Your task to perform on an android device: install app "Venmo" Image 0: 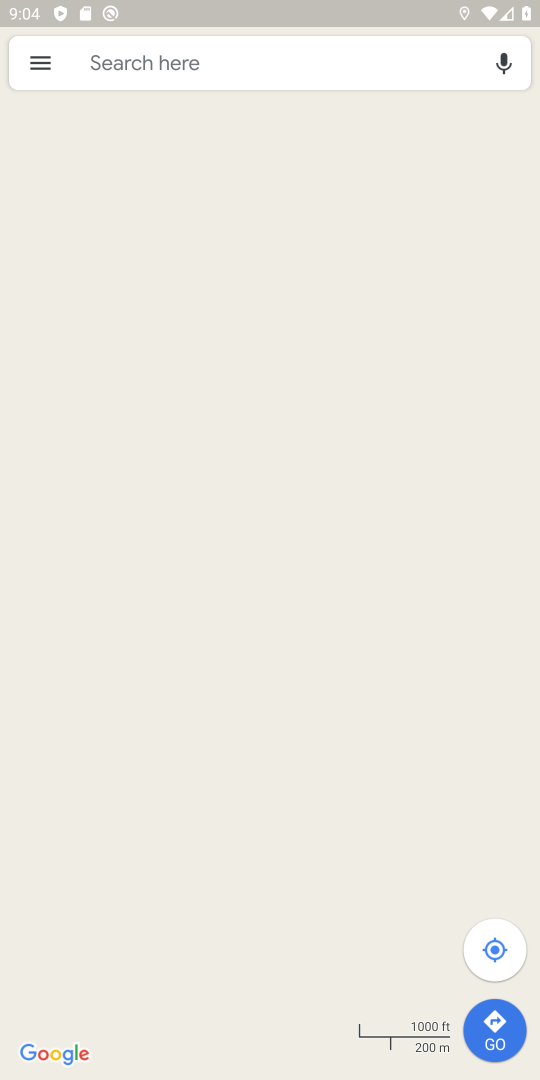
Step 0: click (238, 201)
Your task to perform on an android device: install app "Venmo" Image 1: 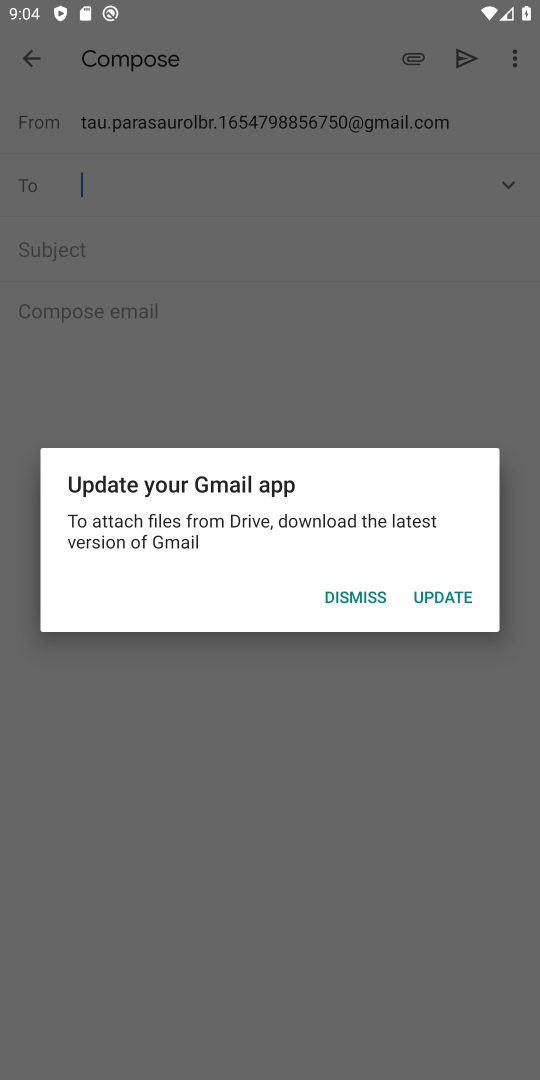
Step 1: press home button
Your task to perform on an android device: install app "Venmo" Image 2: 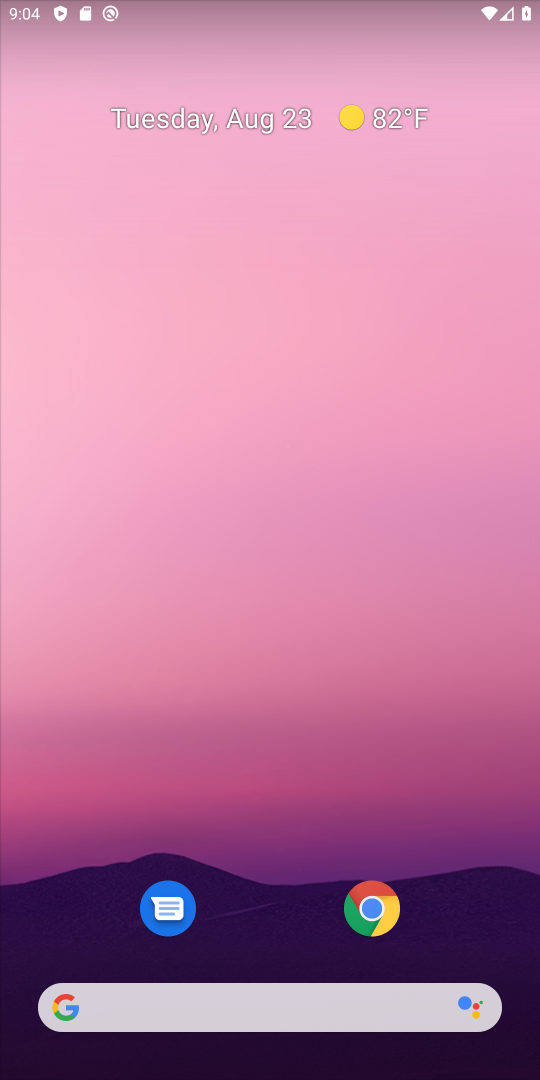
Step 2: drag from (260, 943) to (260, 193)
Your task to perform on an android device: install app "Venmo" Image 3: 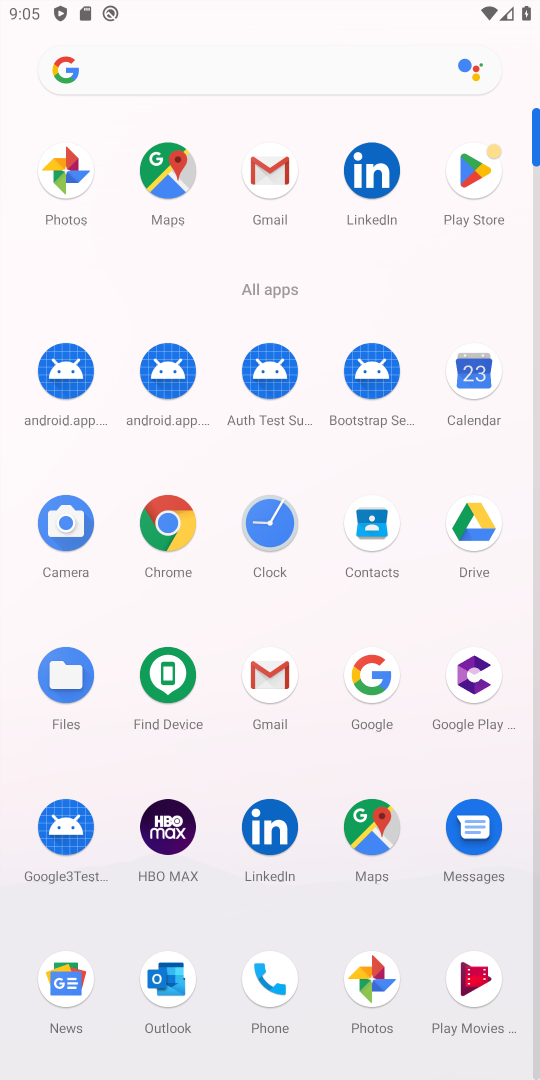
Step 3: click (473, 206)
Your task to perform on an android device: install app "Venmo" Image 4: 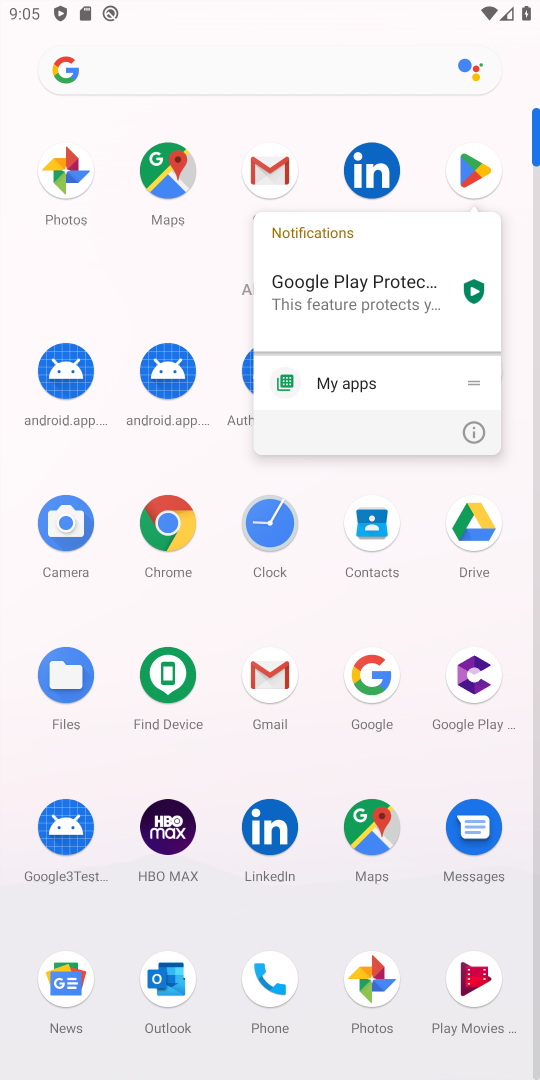
Step 4: click (460, 160)
Your task to perform on an android device: install app "Venmo" Image 5: 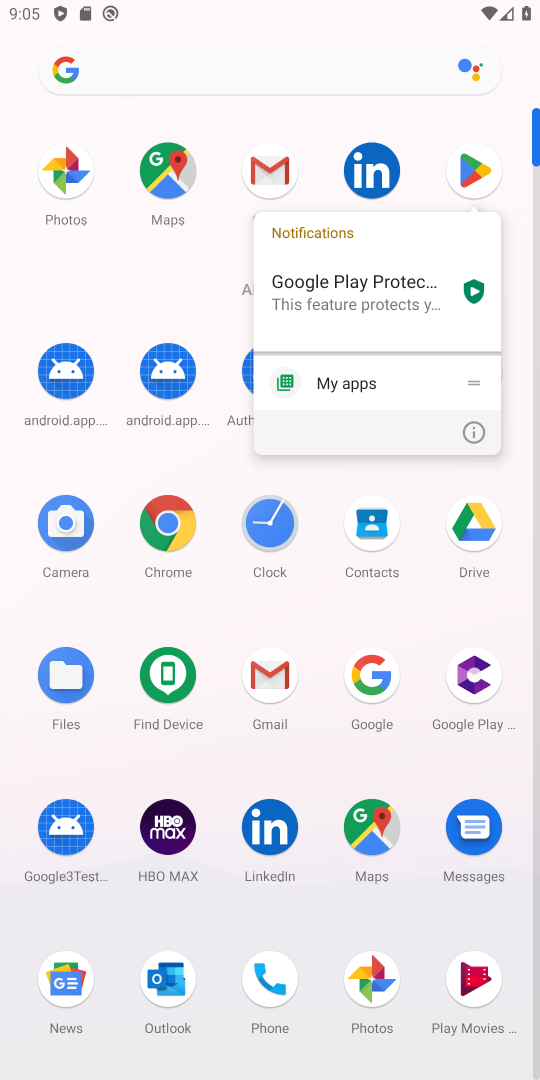
Step 5: click (486, 174)
Your task to perform on an android device: install app "Venmo" Image 6: 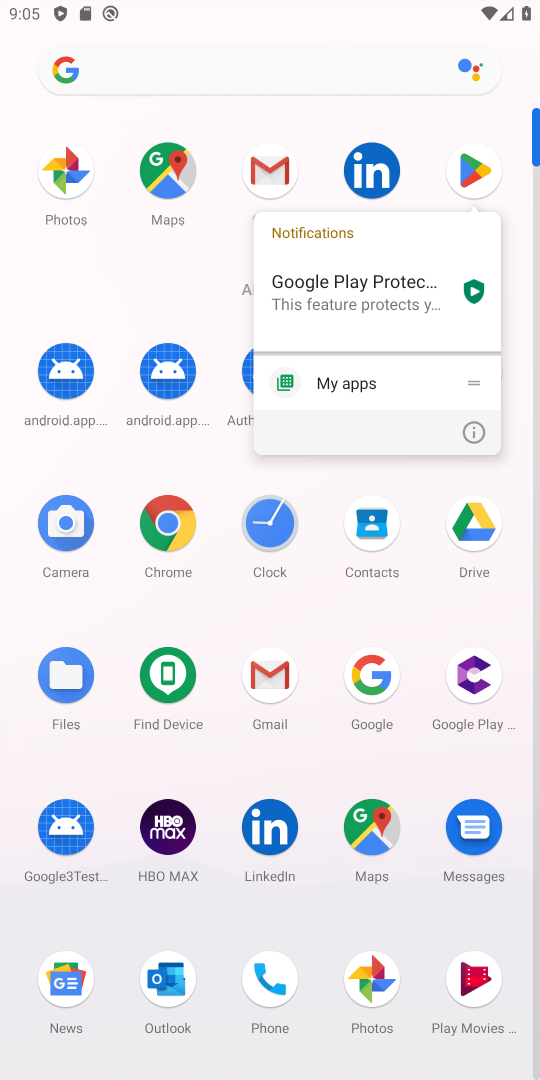
Step 6: click (487, 161)
Your task to perform on an android device: install app "Venmo" Image 7: 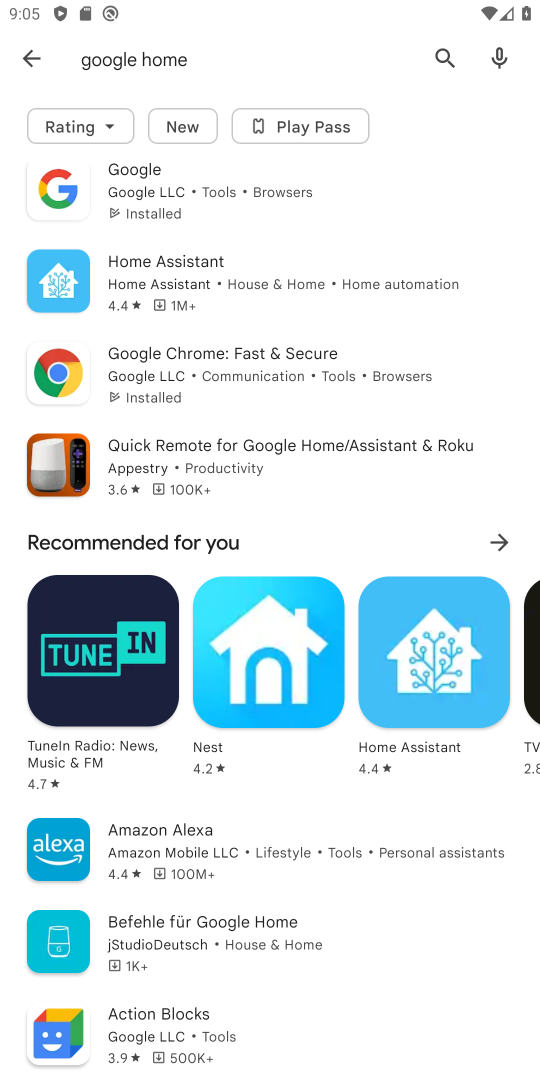
Step 7: click (201, 62)
Your task to perform on an android device: install app "Venmo" Image 8: 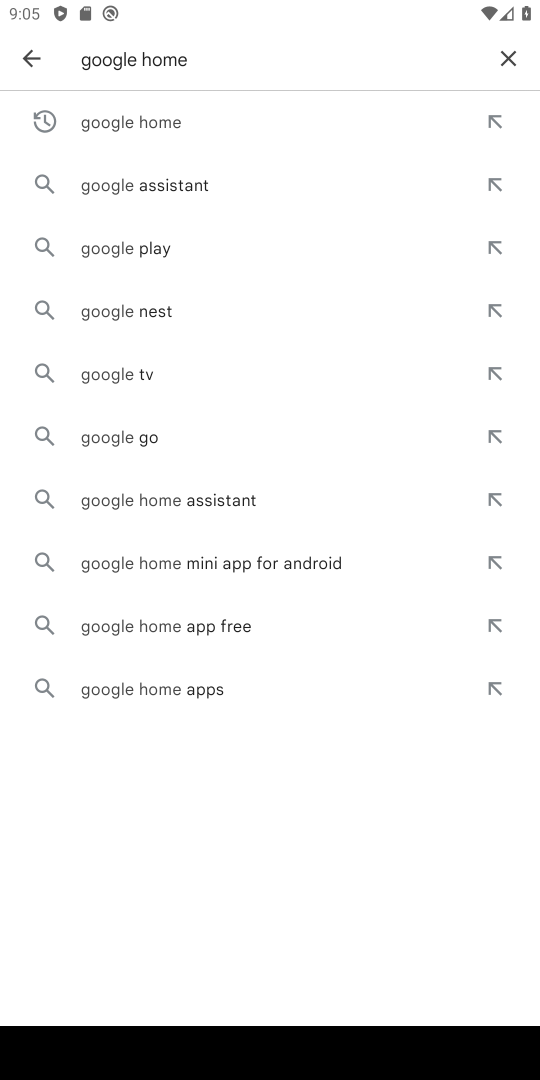
Step 8: click (507, 41)
Your task to perform on an android device: install app "Venmo" Image 9: 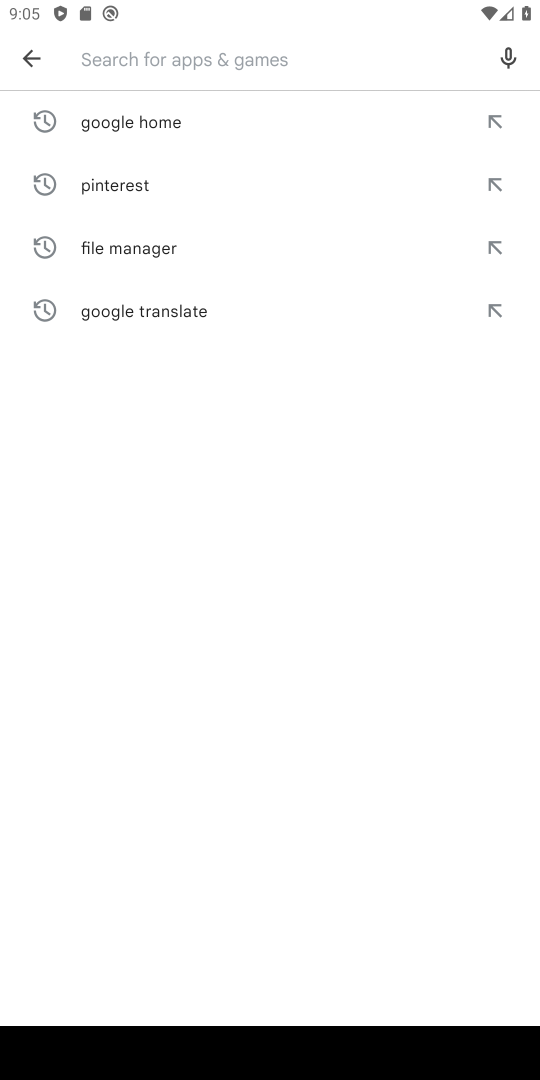
Step 9: type "venmo"
Your task to perform on an android device: install app "Venmo" Image 10: 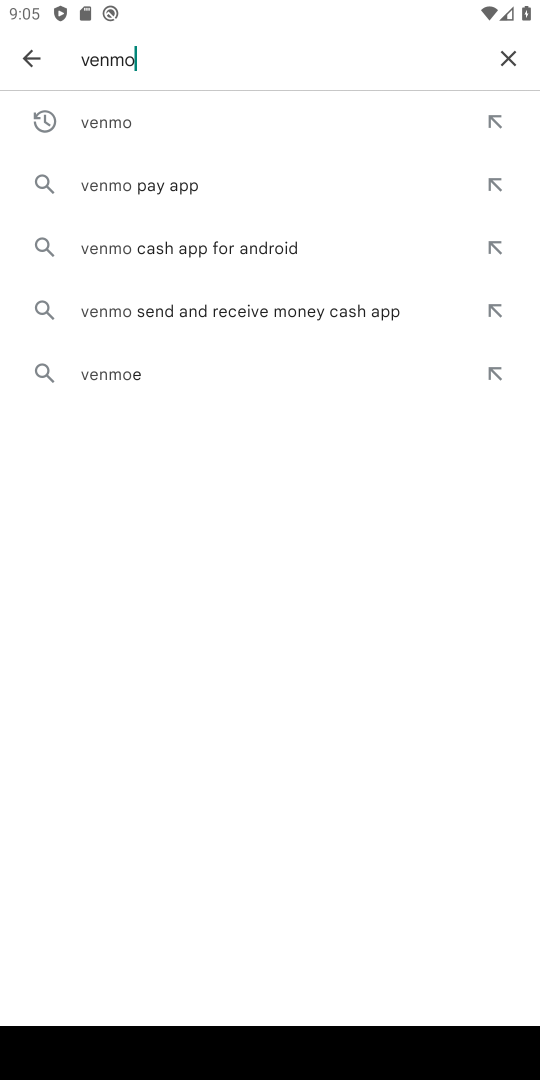
Step 10: click (168, 119)
Your task to perform on an android device: install app "Venmo" Image 11: 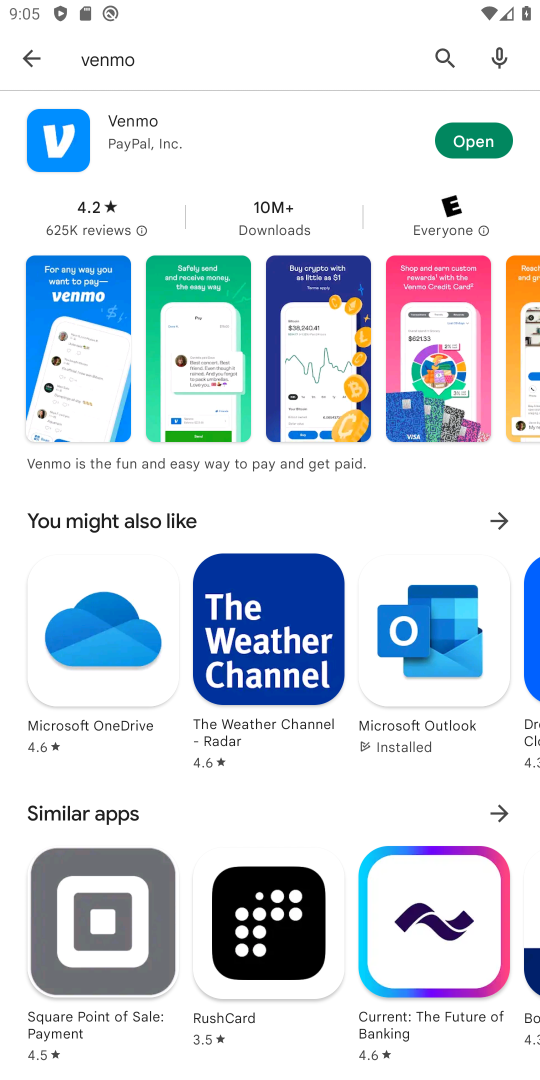
Step 11: task complete